Your task to perform on an android device: toggle notification dots Image 0: 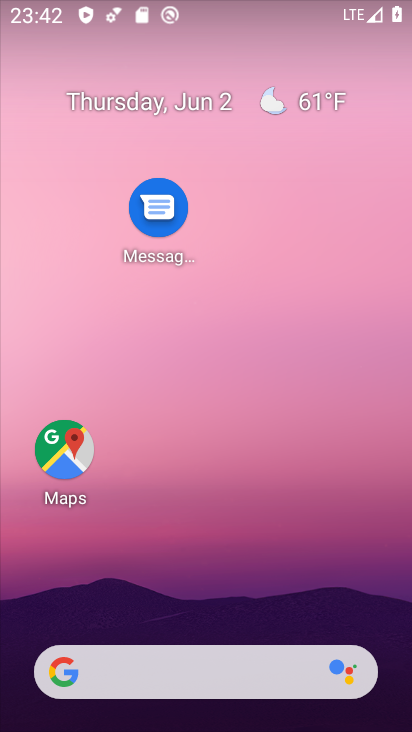
Step 0: drag from (198, 629) to (323, 13)
Your task to perform on an android device: toggle notification dots Image 1: 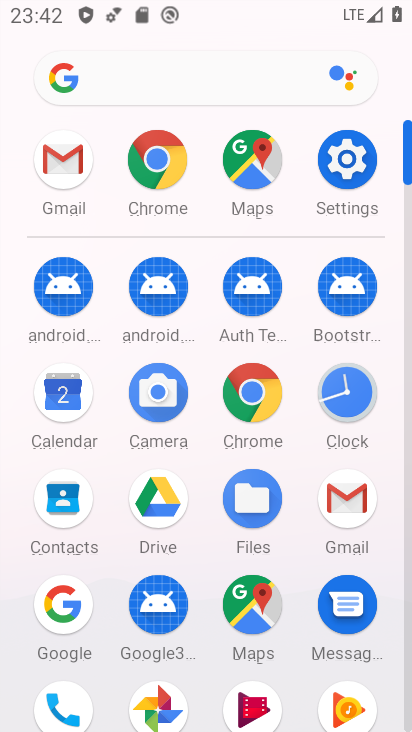
Step 1: click (326, 171)
Your task to perform on an android device: toggle notification dots Image 2: 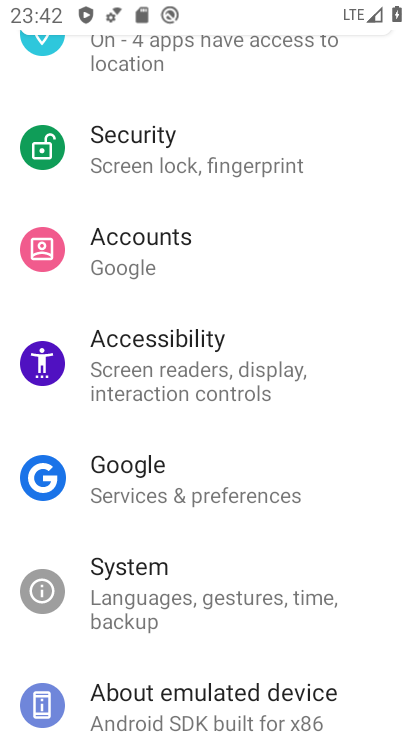
Step 2: drag from (203, 200) to (131, 725)
Your task to perform on an android device: toggle notification dots Image 3: 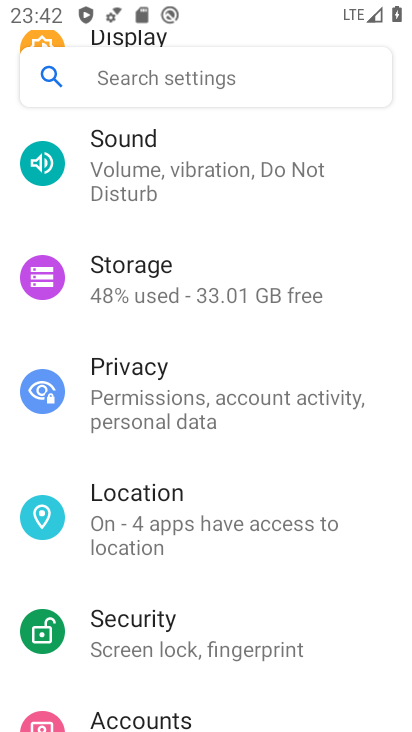
Step 3: drag from (228, 190) to (160, 726)
Your task to perform on an android device: toggle notification dots Image 4: 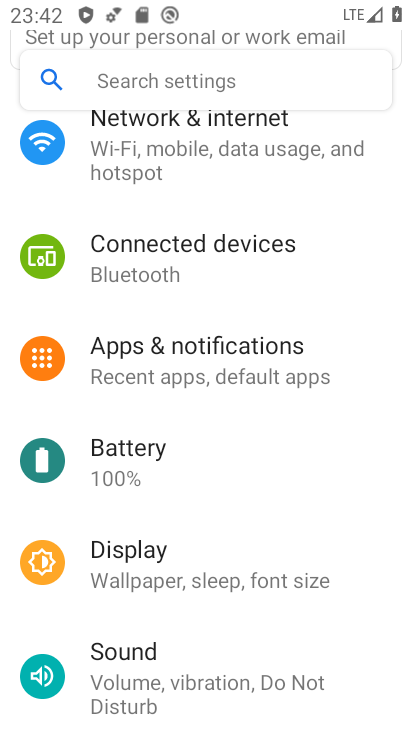
Step 4: click (174, 376)
Your task to perform on an android device: toggle notification dots Image 5: 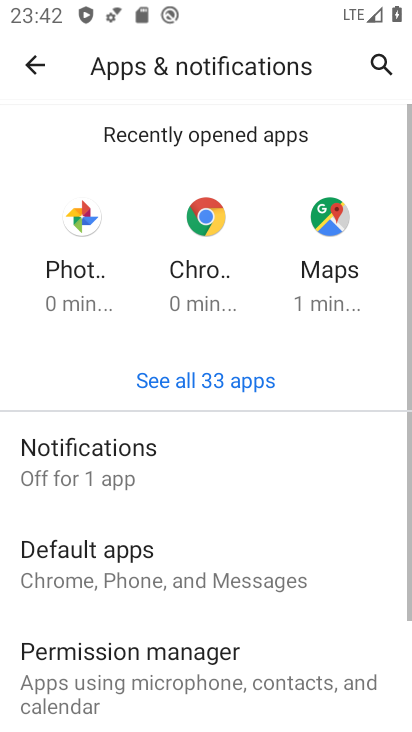
Step 5: click (161, 461)
Your task to perform on an android device: toggle notification dots Image 6: 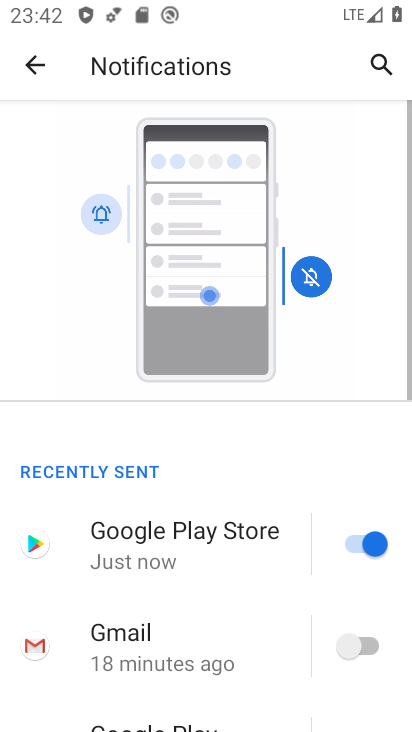
Step 6: drag from (181, 590) to (267, 35)
Your task to perform on an android device: toggle notification dots Image 7: 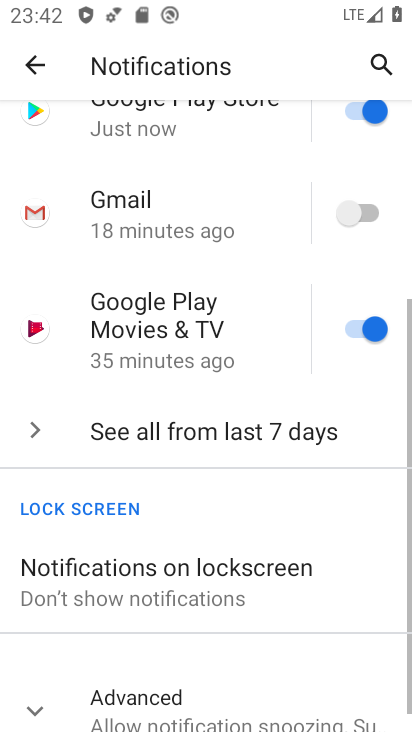
Step 7: click (234, 662)
Your task to perform on an android device: toggle notification dots Image 8: 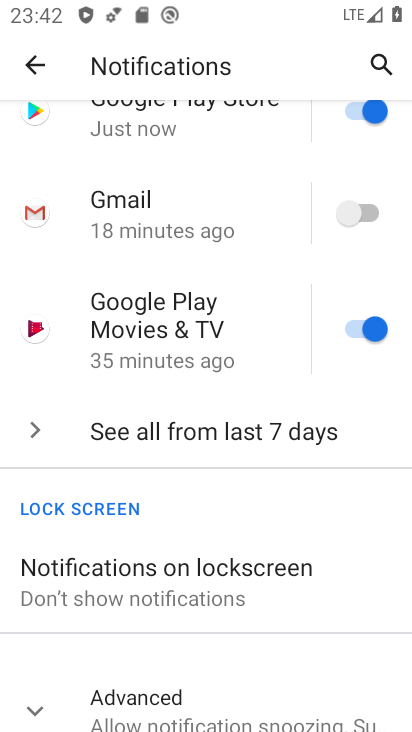
Step 8: drag from (233, 657) to (208, 97)
Your task to perform on an android device: toggle notification dots Image 9: 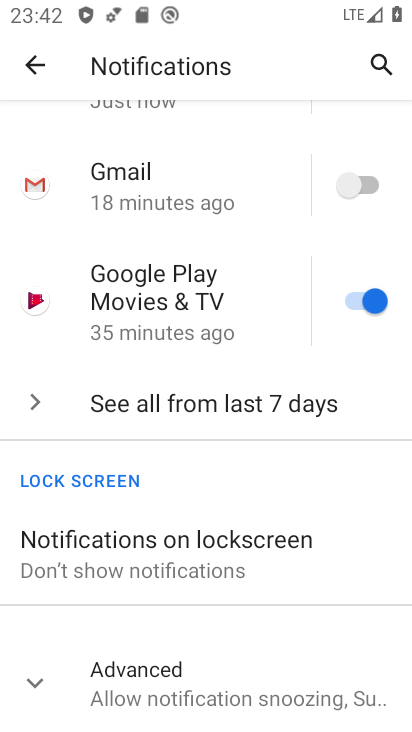
Step 9: click (101, 669)
Your task to perform on an android device: toggle notification dots Image 10: 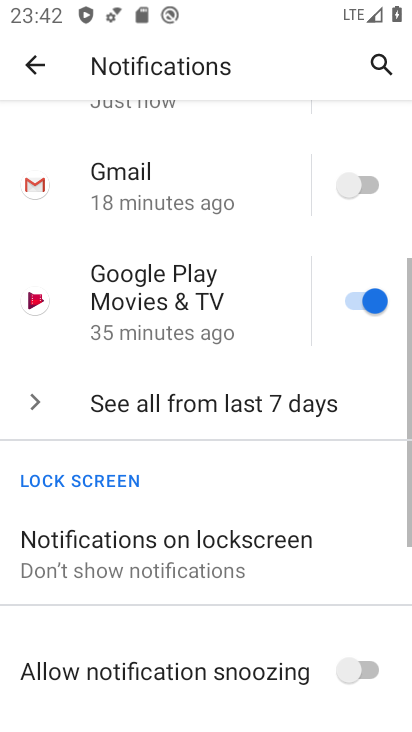
Step 10: drag from (101, 669) to (116, 85)
Your task to perform on an android device: toggle notification dots Image 11: 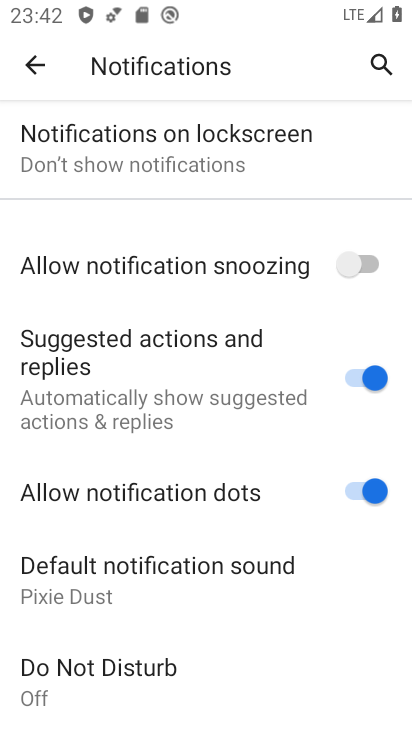
Step 11: click (352, 495)
Your task to perform on an android device: toggle notification dots Image 12: 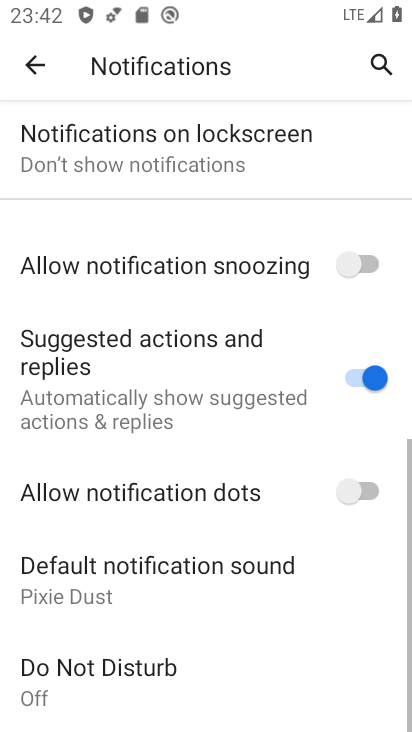
Step 12: task complete